Your task to perform on an android device: turn off location Image 0: 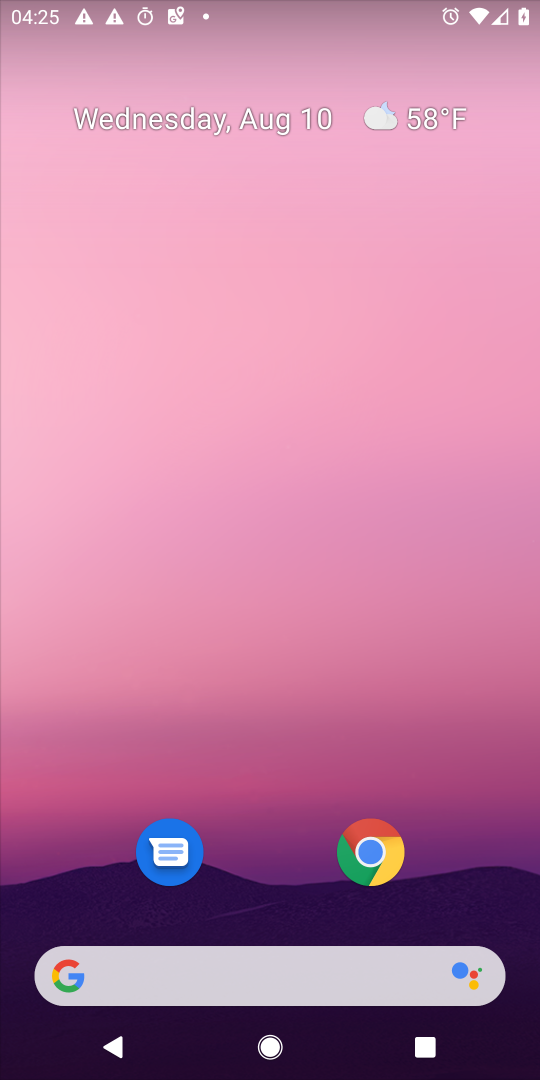
Step 0: drag from (290, 881) to (139, 98)
Your task to perform on an android device: turn off location Image 1: 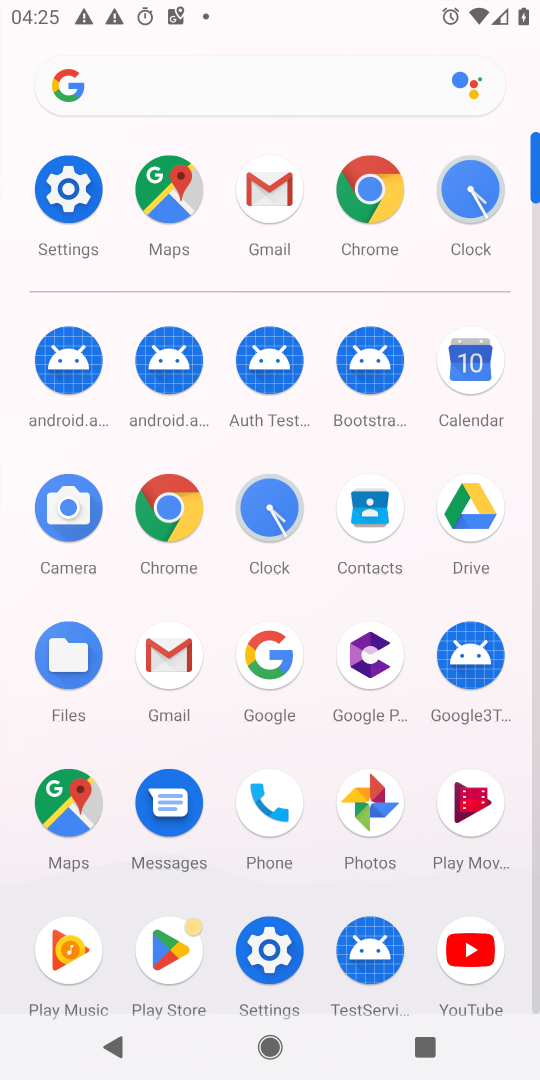
Step 1: click (260, 963)
Your task to perform on an android device: turn off location Image 2: 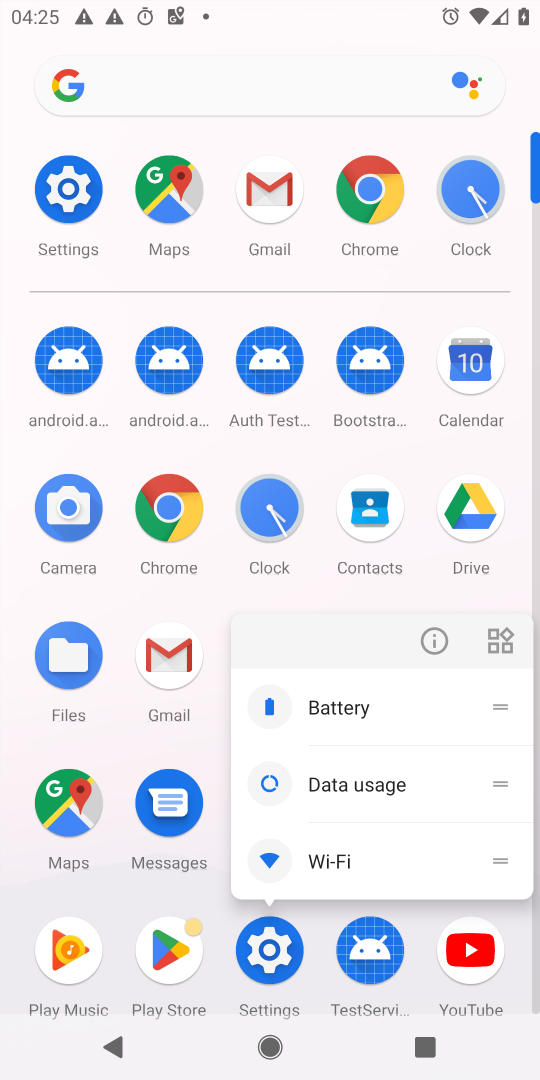
Step 2: click (262, 949)
Your task to perform on an android device: turn off location Image 3: 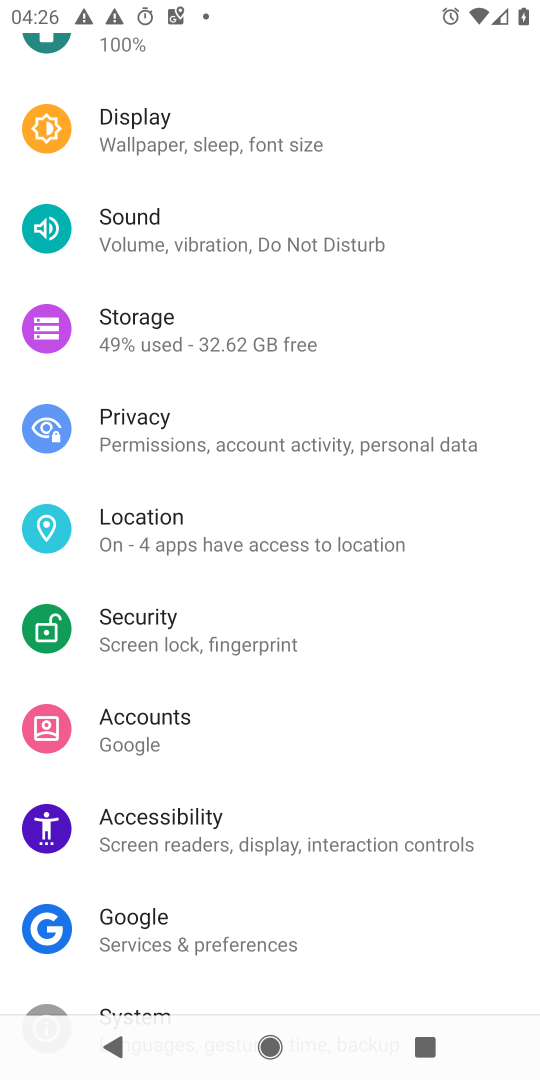
Step 3: click (187, 537)
Your task to perform on an android device: turn off location Image 4: 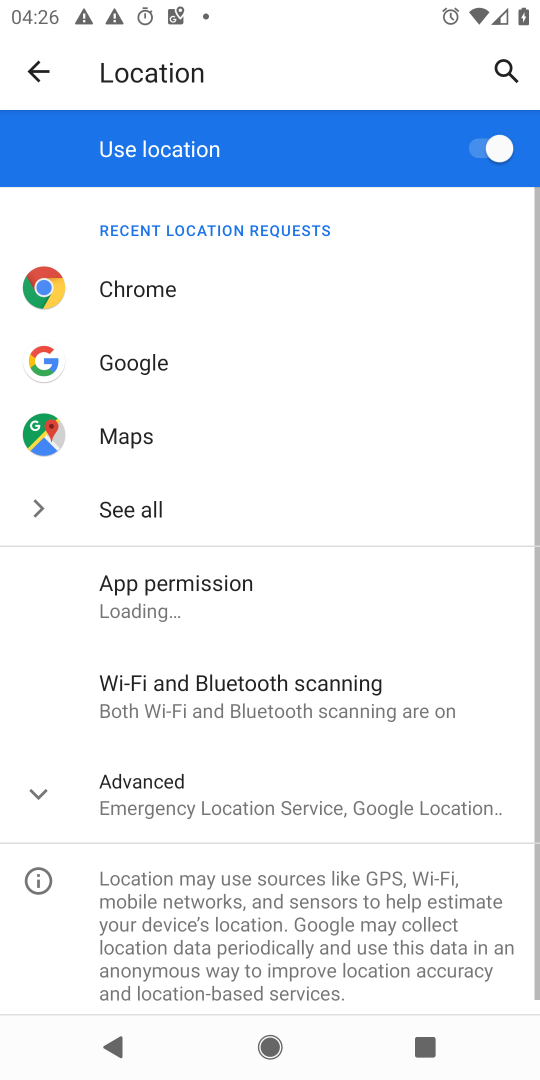
Step 4: click (461, 152)
Your task to perform on an android device: turn off location Image 5: 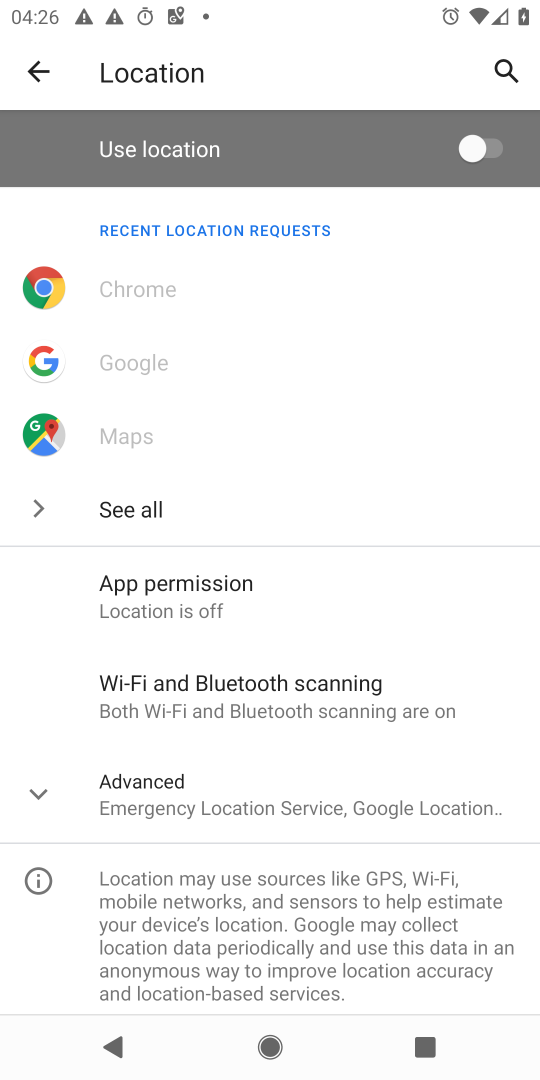
Step 5: task complete